Your task to perform on an android device: turn on the 12-hour format for clock Image 0: 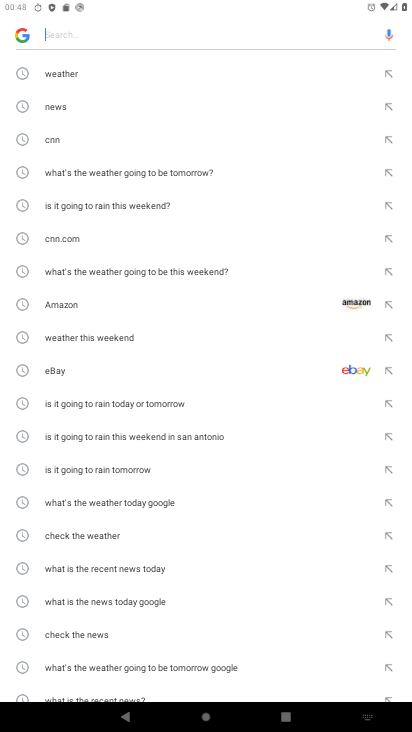
Step 0: press back button
Your task to perform on an android device: turn on the 12-hour format for clock Image 1: 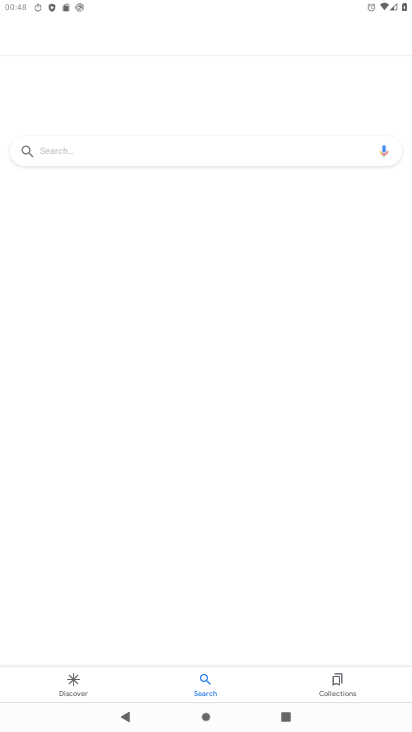
Step 1: press back button
Your task to perform on an android device: turn on the 12-hour format for clock Image 2: 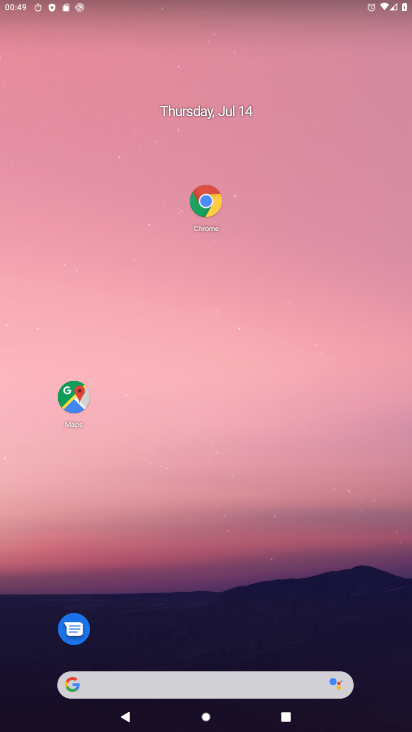
Step 2: drag from (209, 604) to (218, 177)
Your task to perform on an android device: turn on the 12-hour format for clock Image 3: 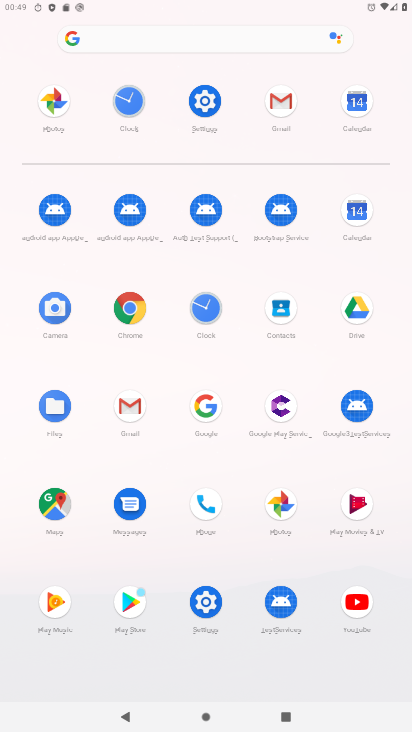
Step 3: click (197, 316)
Your task to perform on an android device: turn on the 12-hour format for clock Image 4: 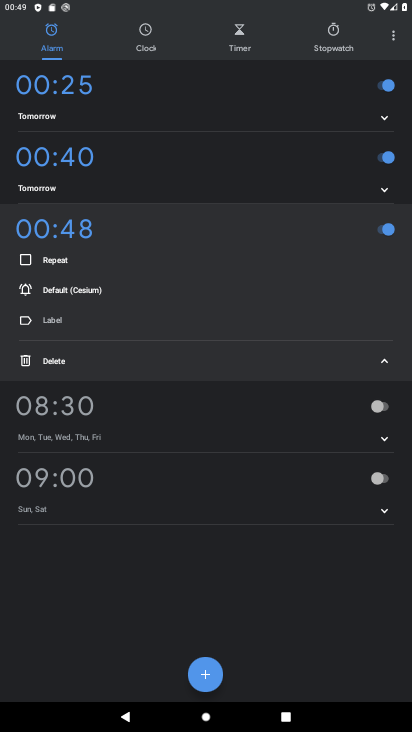
Step 4: click (394, 40)
Your task to perform on an android device: turn on the 12-hour format for clock Image 5: 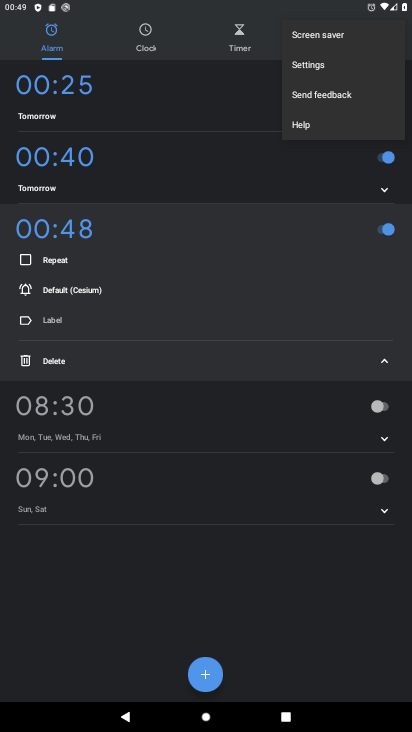
Step 5: click (310, 68)
Your task to perform on an android device: turn on the 12-hour format for clock Image 6: 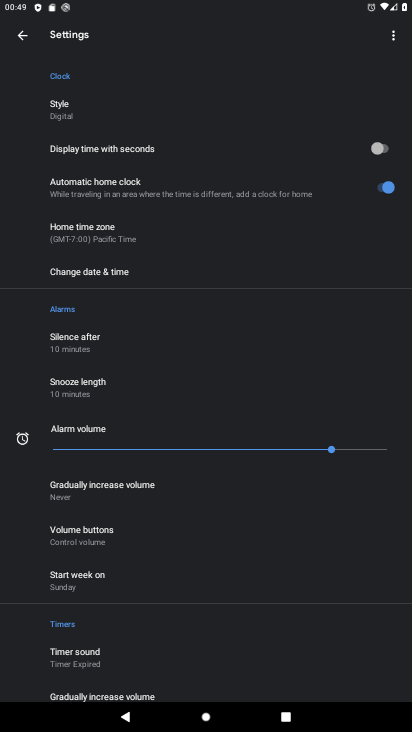
Step 6: drag from (186, 537) to (52, 6)
Your task to perform on an android device: turn on the 12-hour format for clock Image 7: 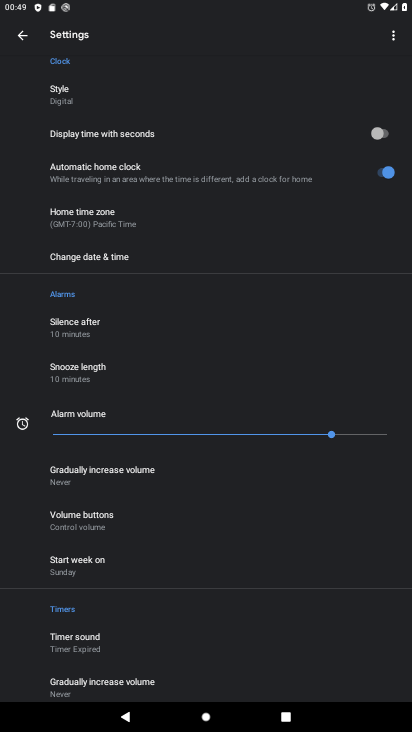
Step 7: click (61, 265)
Your task to perform on an android device: turn on the 12-hour format for clock Image 8: 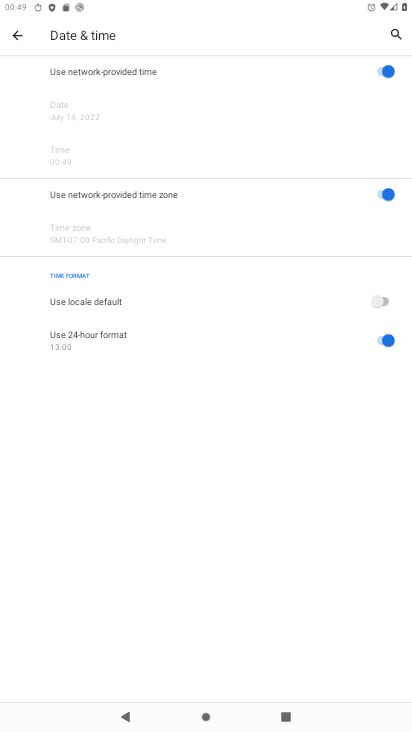
Step 8: click (385, 342)
Your task to perform on an android device: turn on the 12-hour format for clock Image 9: 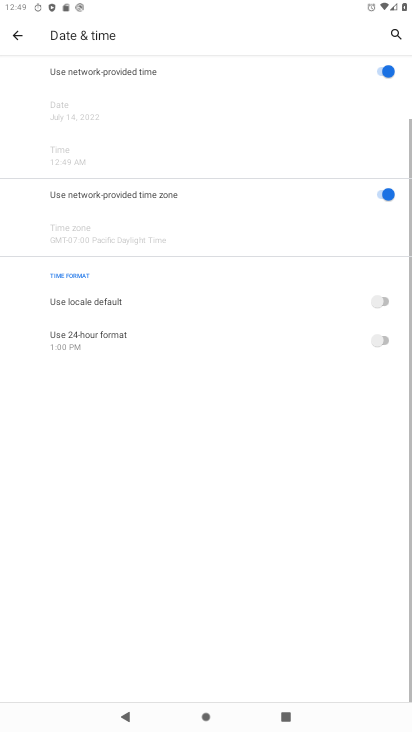
Step 9: task complete